Your task to perform on an android device: Turn off the flashlight Image 0: 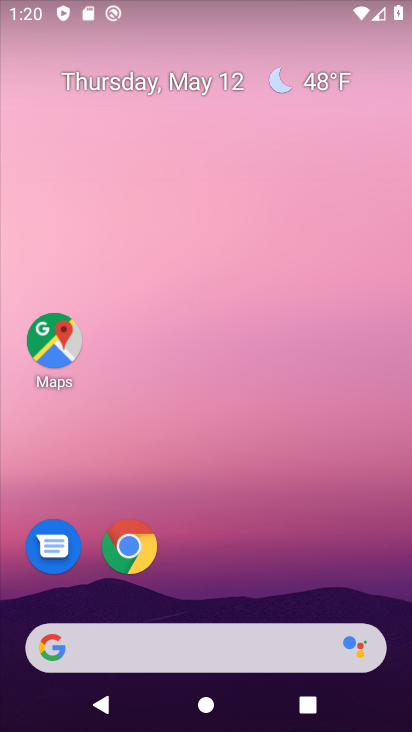
Step 0: drag from (250, 669) to (409, 273)
Your task to perform on an android device: Turn off the flashlight Image 1: 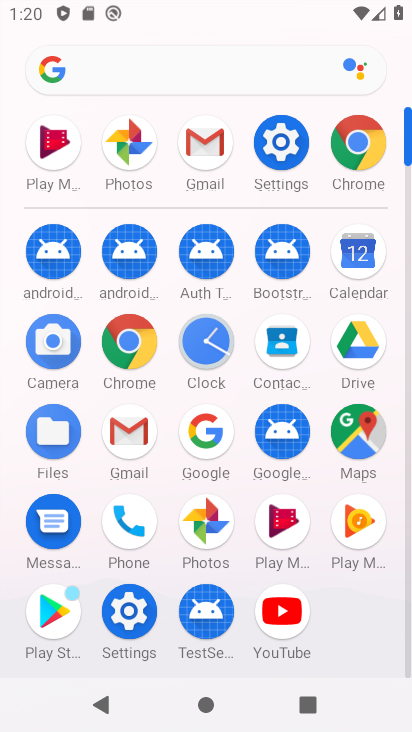
Step 1: click (307, 153)
Your task to perform on an android device: Turn off the flashlight Image 2: 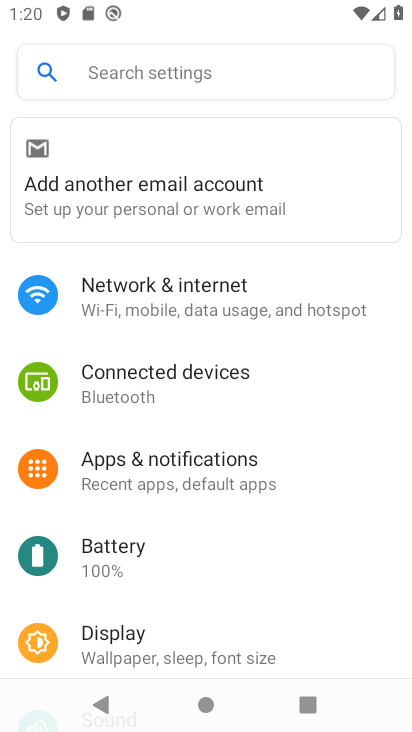
Step 2: click (170, 84)
Your task to perform on an android device: Turn off the flashlight Image 3: 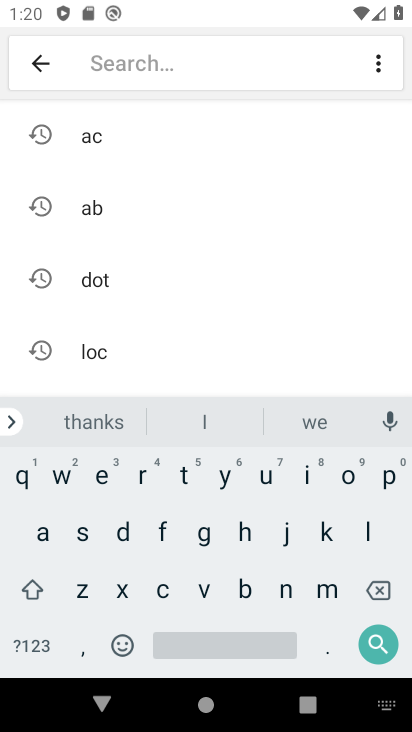
Step 3: click (156, 527)
Your task to perform on an android device: Turn off the flashlight Image 4: 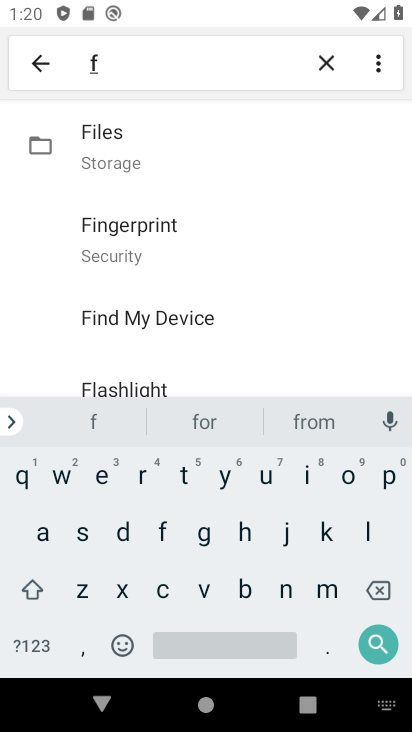
Step 4: click (375, 536)
Your task to perform on an android device: Turn off the flashlight Image 5: 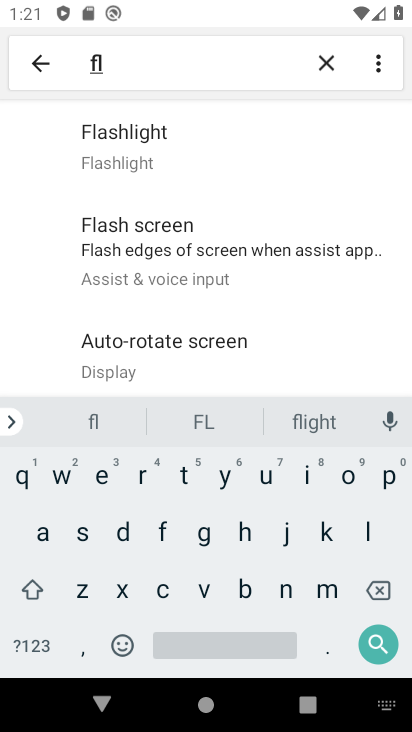
Step 5: click (171, 159)
Your task to perform on an android device: Turn off the flashlight Image 6: 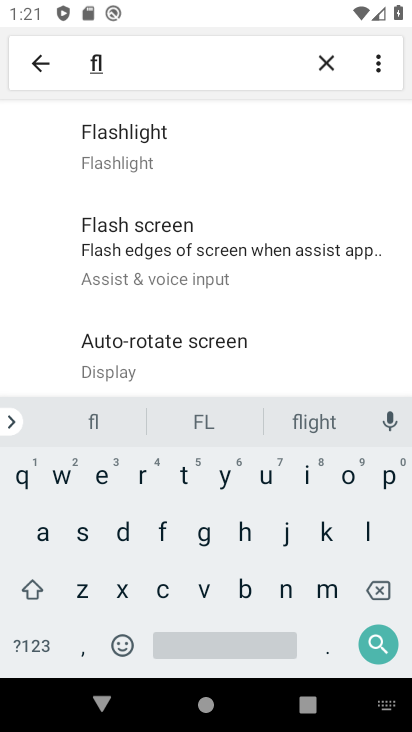
Step 6: click (152, 131)
Your task to perform on an android device: Turn off the flashlight Image 7: 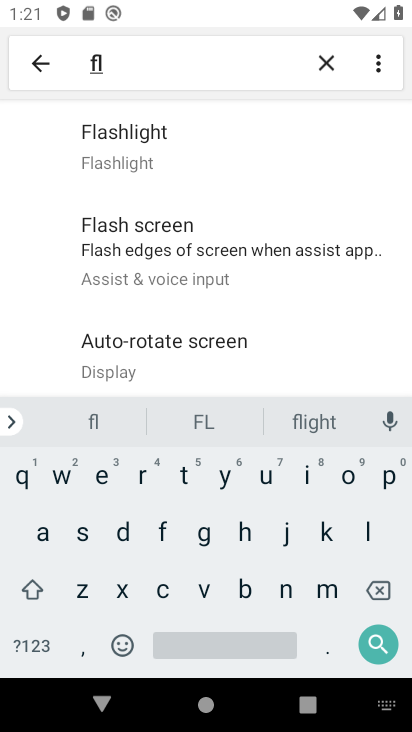
Step 7: click (152, 151)
Your task to perform on an android device: Turn off the flashlight Image 8: 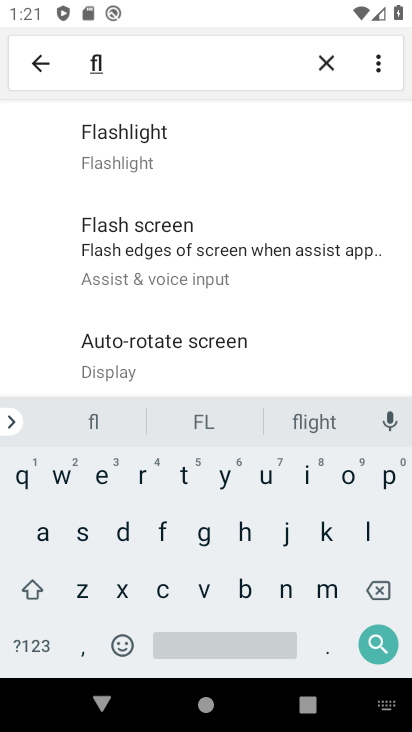
Step 8: task complete